Your task to perform on an android device: change text size in settings app Image 0: 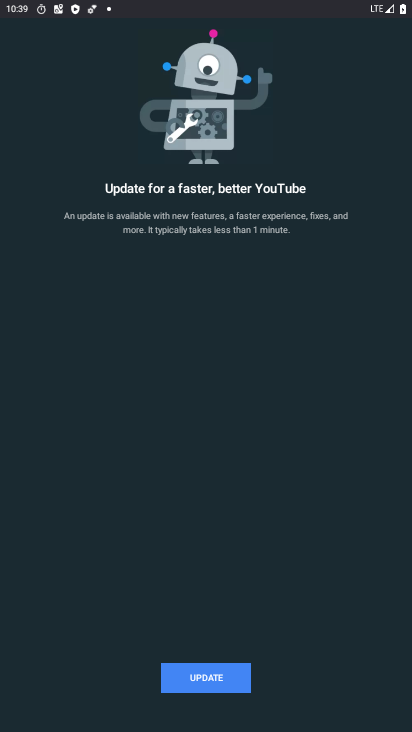
Step 0: press home button
Your task to perform on an android device: change text size in settings app Image 1: 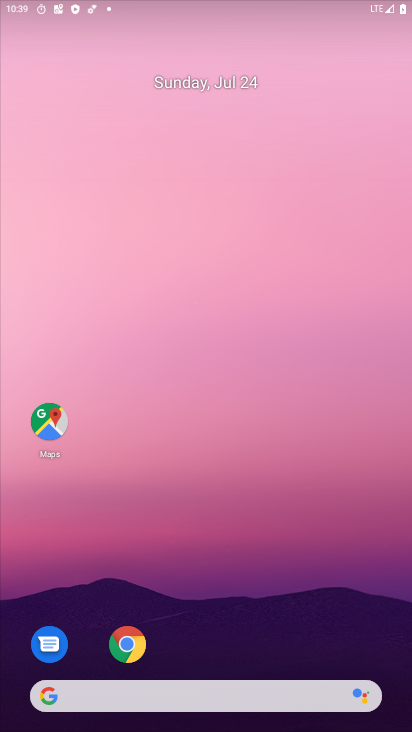
Step 1: drag from (214, 338) to (214, 180)
Your task to perform on an android device: change text size in settings app Image 2: 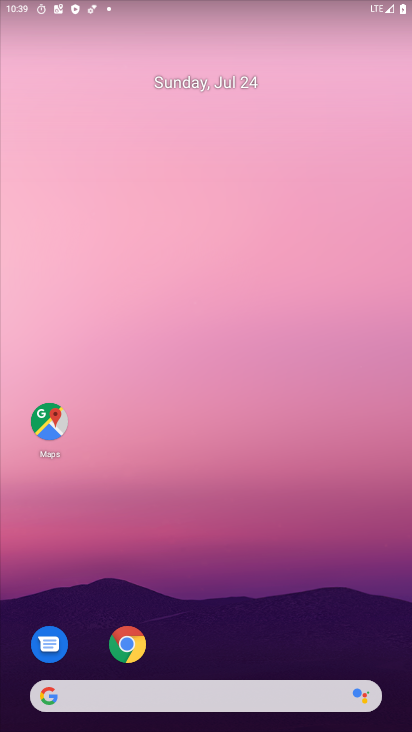
Step 2: drag from (235, 692) to (251, 110)
Your task to perform on an android device: change text size in settings app Image 3: 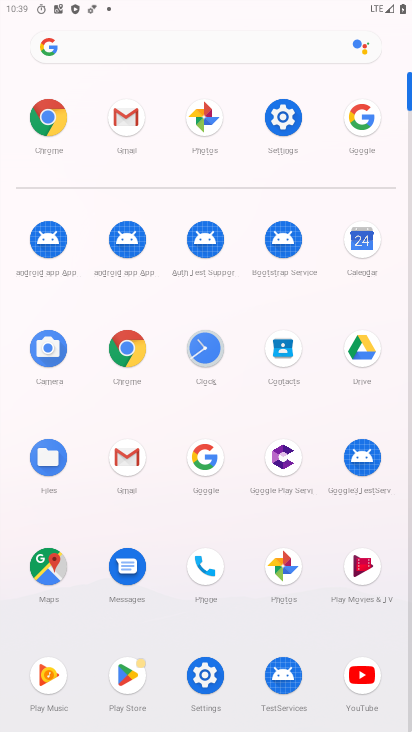
Step 3: click (282, 125)
Your task to perform on an android device: change text size in settings app Image 4: 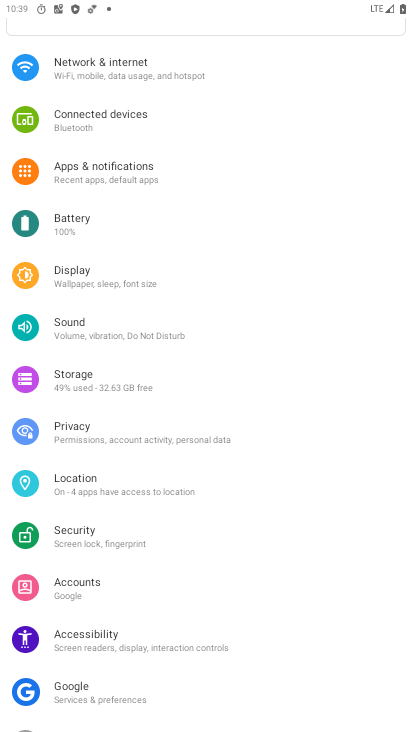
Step 4: drag from (94, 693) to (85, 259)
Your task to perform on an android device: change text size in settings app Image 5: 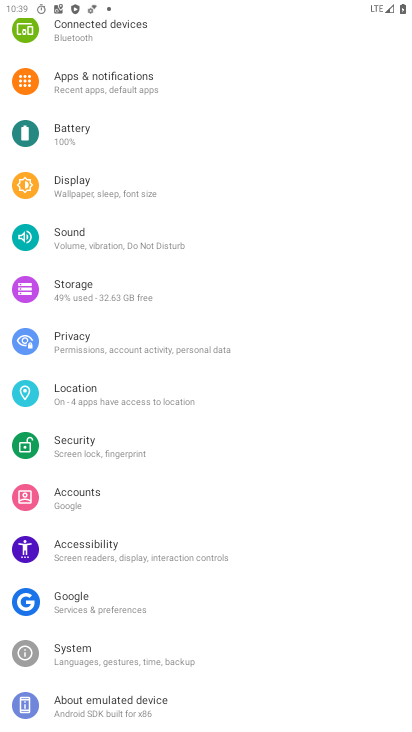
Step 5: click (81, 551)
Your task to perform on an android device: change text size in settings app Image 6: 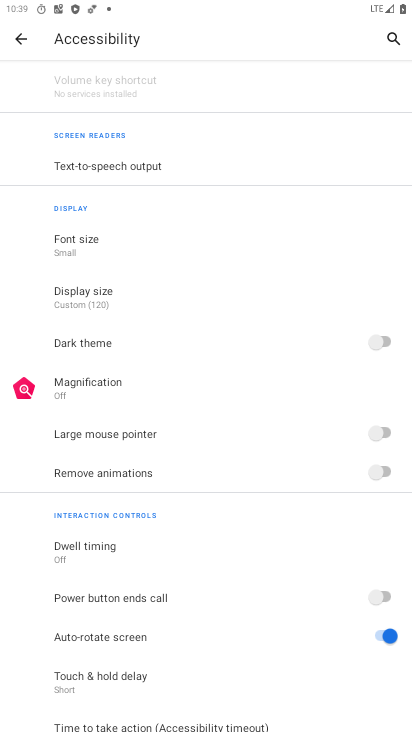
Step 6: click (77, 170)
Your task to perform on an android device: change text size in settings app Image 7: 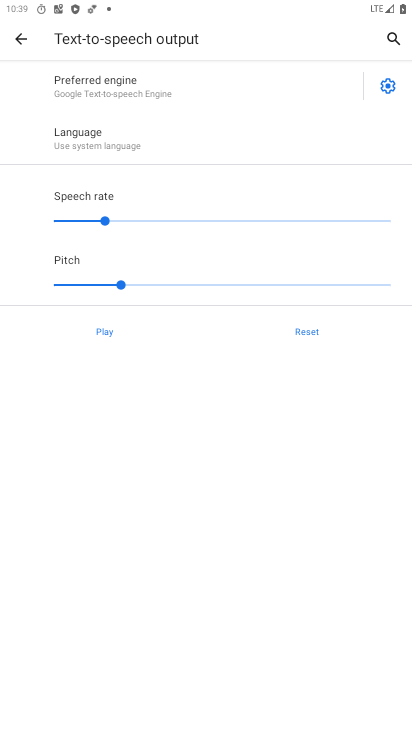
Step 7: click (28, 37)
Your task to perform on an android device: change text size in settings app Image 8: 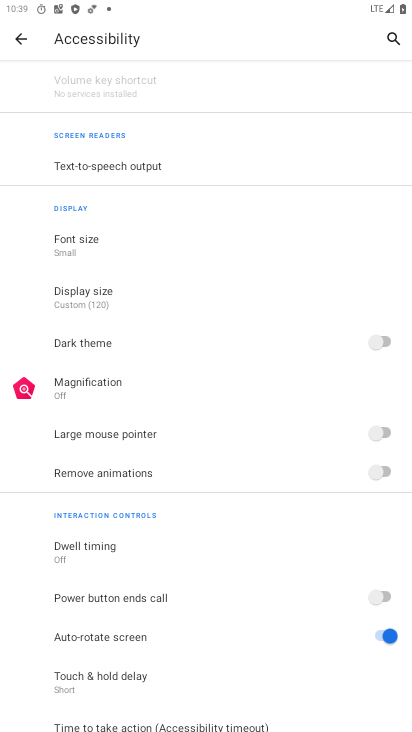
Step 8: click (80, 246)
Your task to perform on an android device: change text size in settings app Image 9: 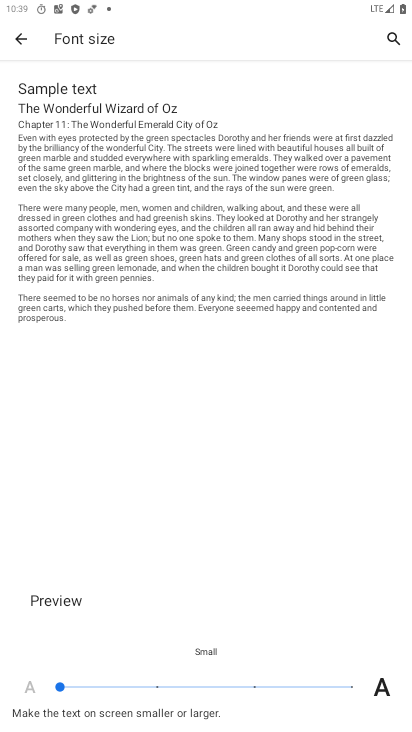
Step 9: click (155, 689)
Your task to perform on an android device: change text size in settings app Image 10: 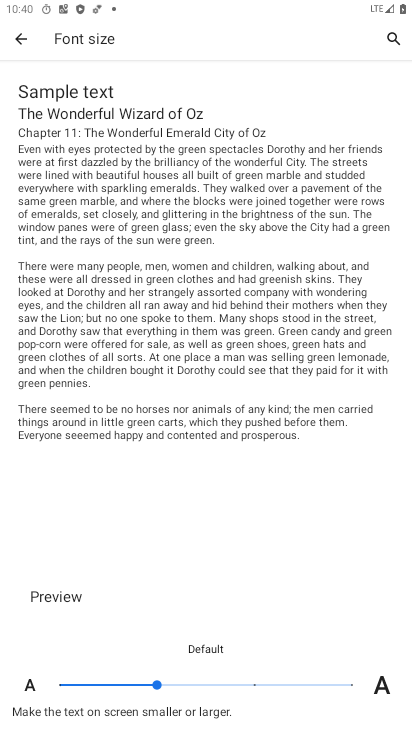
Step 10: task complete